Your task to perform on an android device: turn vacation reply on in the gmail app Image 0: 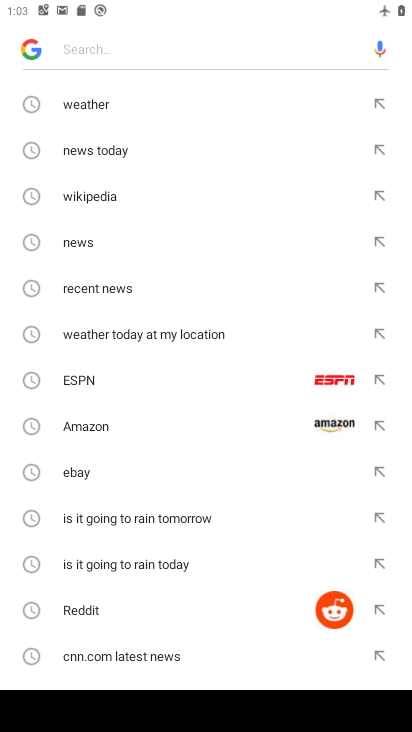
Step 0: press home button
Your task to perform on an android device: turn vacation reply on in the gmail app Image 1: 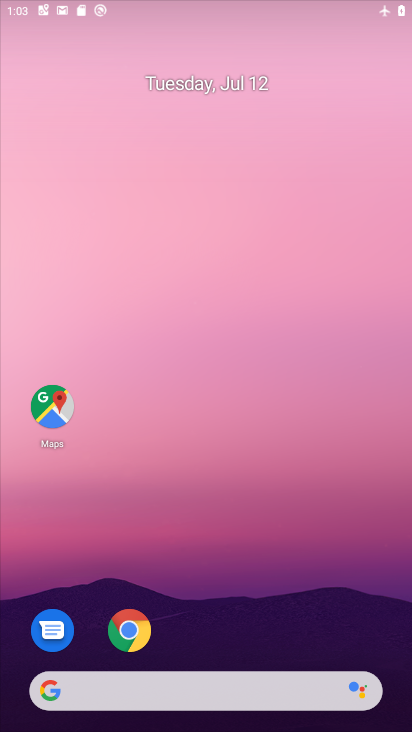
Step 1: drag from (206, 693) to (227, 188)
Your task to perform on an android device: turn vacation reply on in the gmail app Image 2: 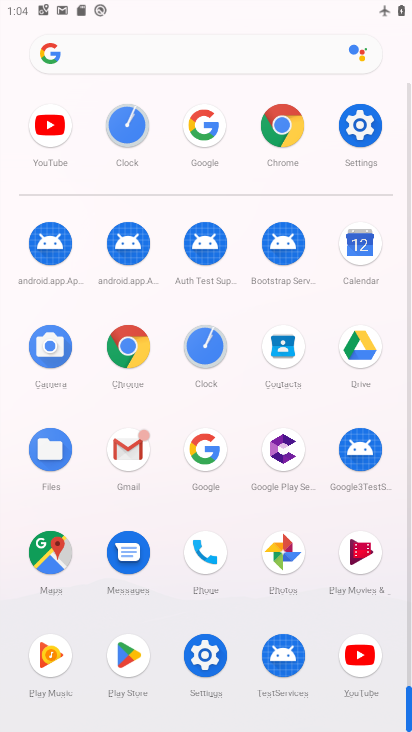
Step 2: click (137, 461)
Your task to perform on an android device: turn vacation reply on in the gmail app Image 3: 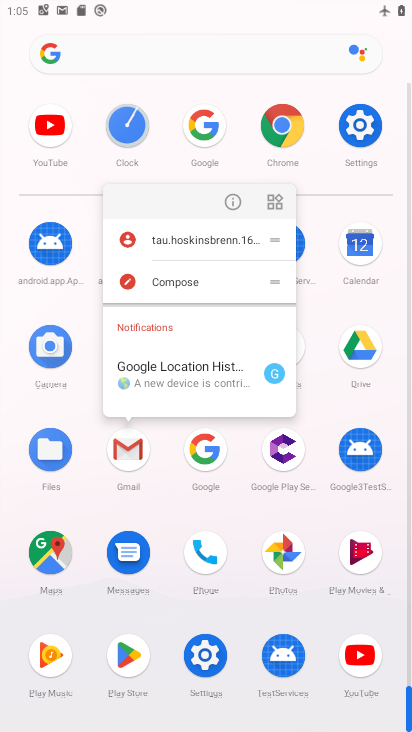
Step 3: click (137, 461)
Your task to perform on an android device: turn vacation reply on in the gmail app Image 4: 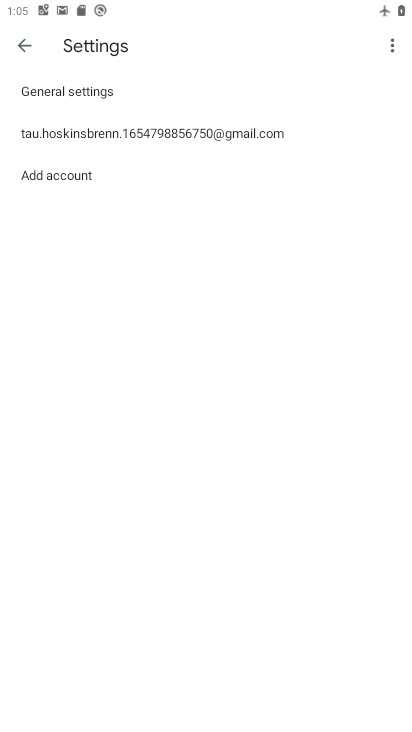
Step 4: click (77, 130)
Your task to perform on an android device: turn vacation reply on in the gmail app Image 5: 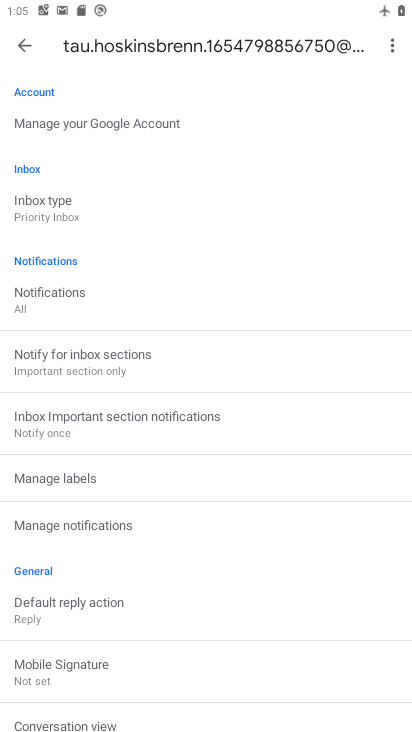
Step 5: drag from (113, 596) to (168, 124)
Your task to perform on an android device: turn vacation reply on in the gmail app Image 6: 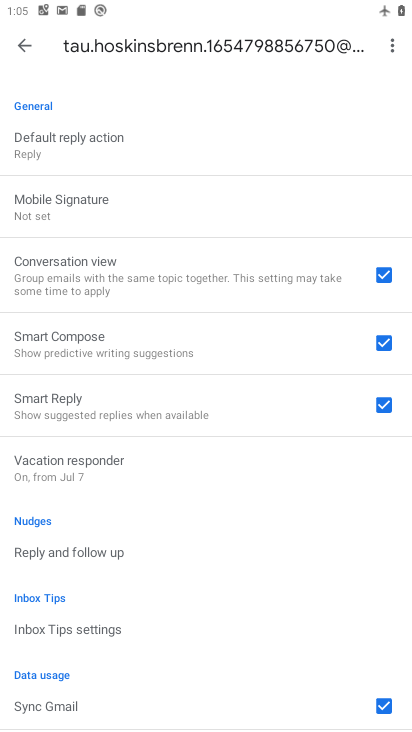
Step 6: drag from (125, 574) to (255, 162)
Your task to perform on an android device: turn vacation reply on in the gmail app Image 7: 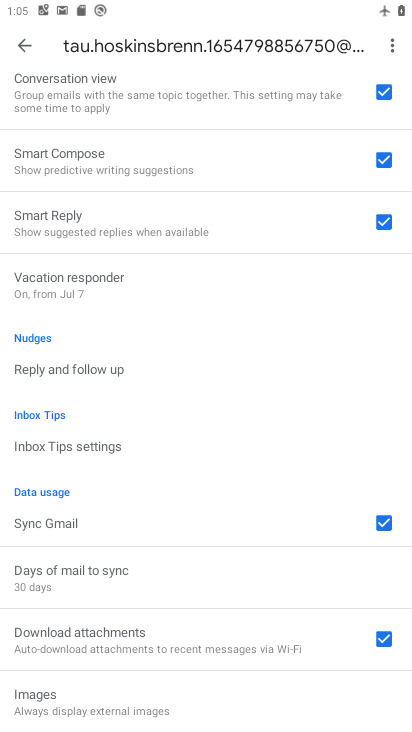
Step 7: click (70, 293)
Your task to perform on an android device: turn vacation reply on in the gmail app Image 8: 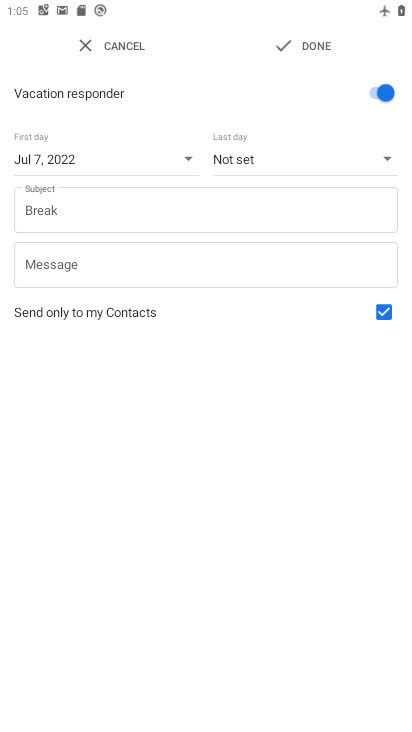
Step 8: task complete